Your task to perform on an android device: check the backup settings in the google photos Image 0: 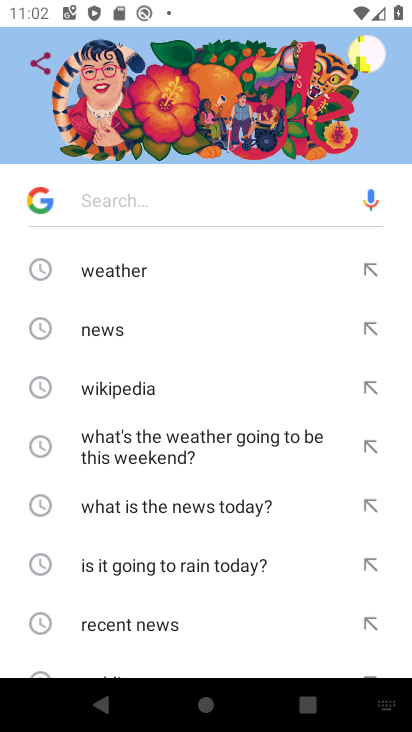
Step 0: press home button
Your task to perform on an android device: check the backup settings in the google photos Image 1: 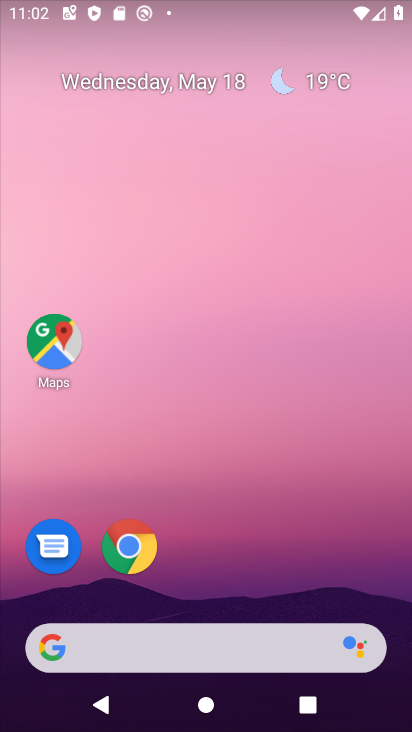
Step 1: click (173, 723)
Your task to perform on an android device: check the backup settings in the google photos Image 2: 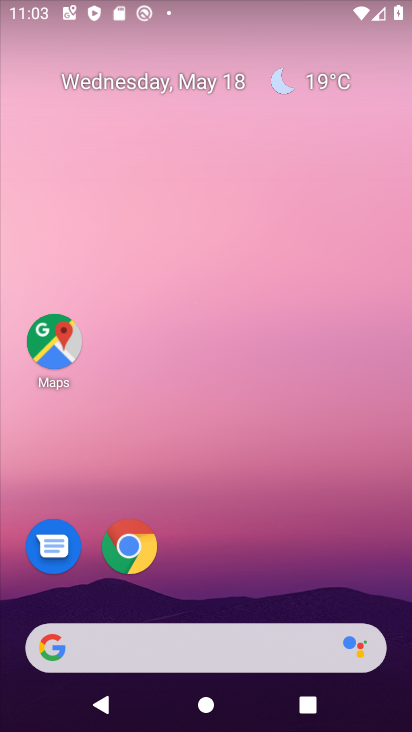
Step 2: click (281, 80)
Your task to perform on an android device: check the backup settings in the google photos Image 3: 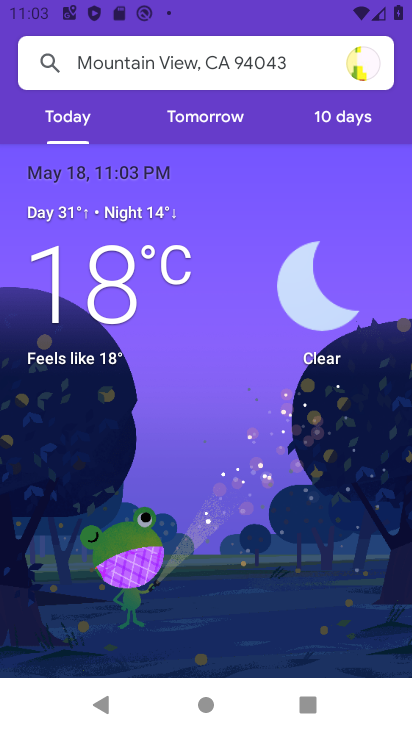
Step 3: press home button
Your task to perform on an android device: check the backup settings in the google photos Image 4: 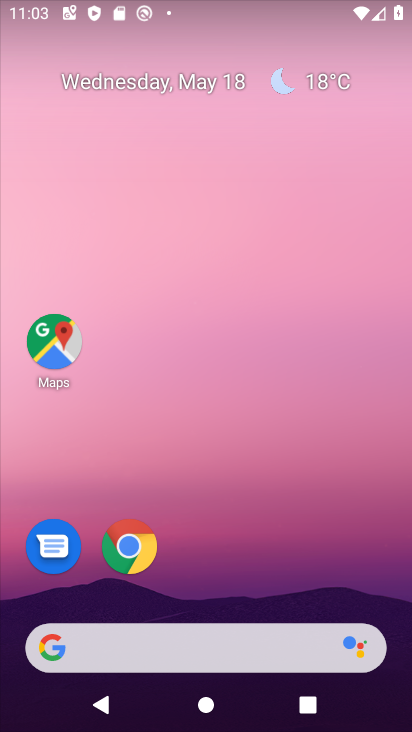
Step 4: drag from (184, 725) to (183, 82)
Your task to perform on an android device: check the backup settings in the google photos Image 5: 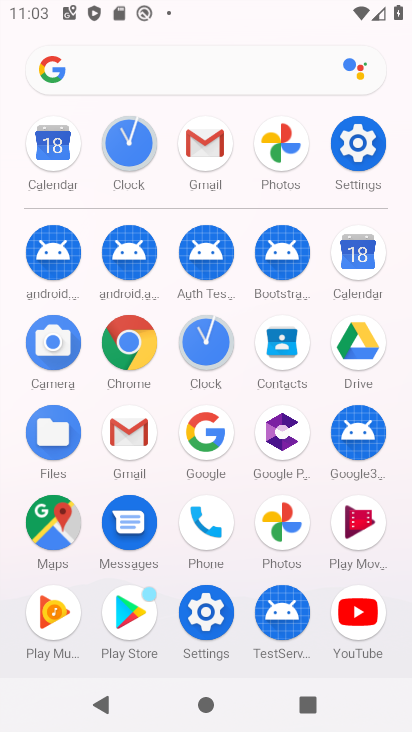
Step 5: click (283, 517)
Your task to perform on an android device: check the backup settings in the google photos Image 6: 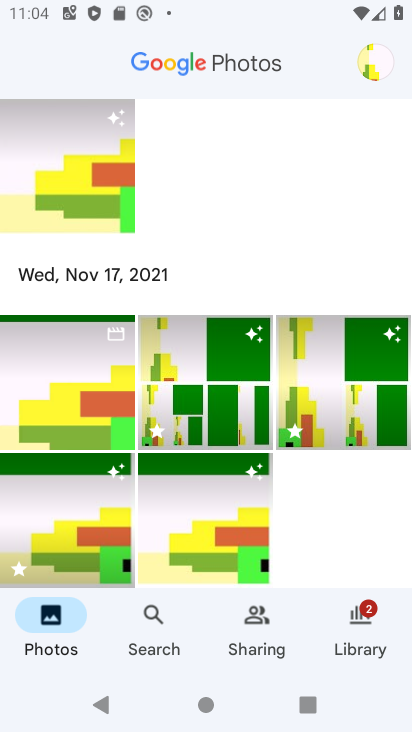
Step 6: click (370, 52)
Your task to perform on an android device: check the backup settings in the google photos Image 7: 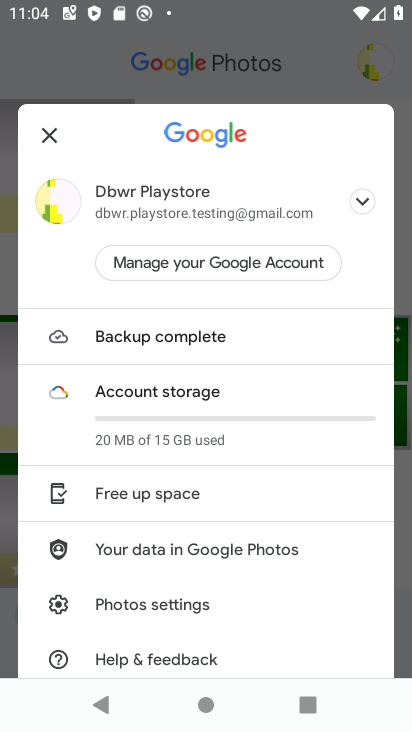
Step 7: drag from (166, 642) to (168, 215)
Your task to perform on an android device: check the backup settings in the google photos Image 8: 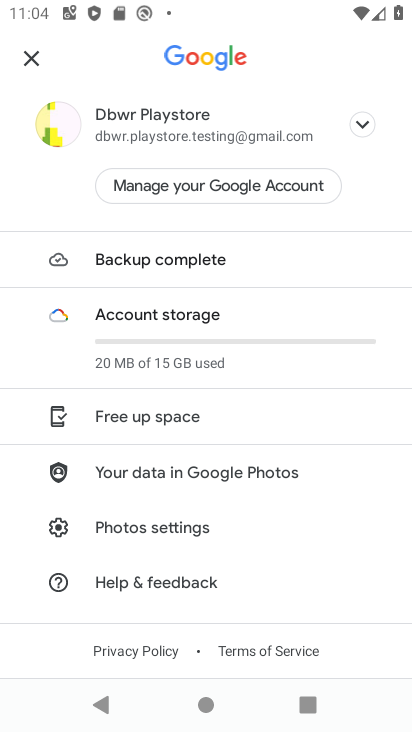
Step 8: drag from (151, 620) to (151, 335)
Your task to perform on an android device: check the backup settings in the google photos Image 9: 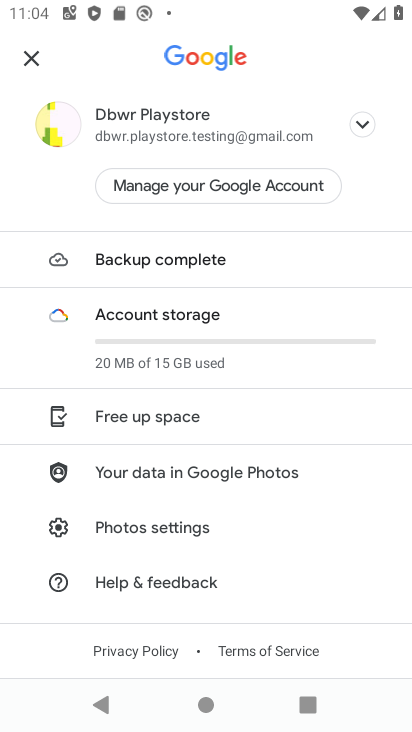
Step 9: click (169, 519)
Your task to perform on an android device: check the backup settings in the google photos Image 10: 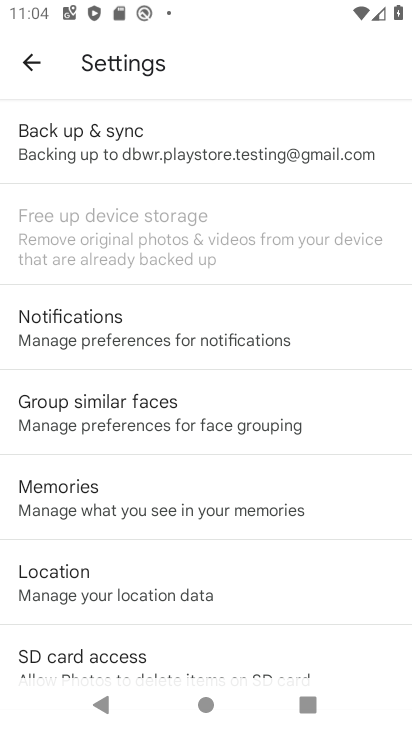
Step 10: click (106, 148)
Your task to perform on an android device: check the backup settings in the google photos Image 11: 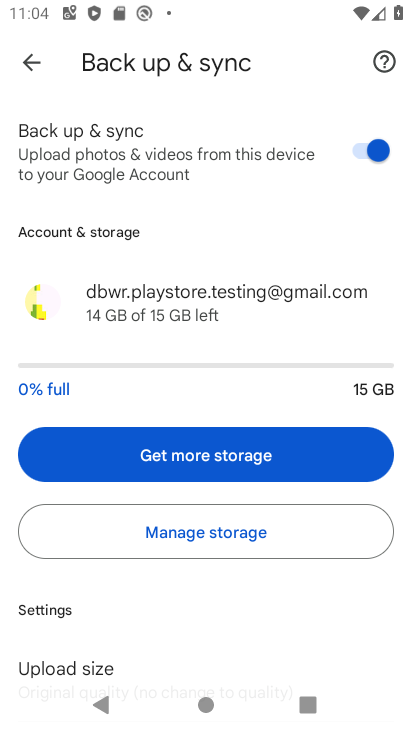
Step 11: task complete